Your task to perform on an android device: Open the phone app and click the voicemail tab. Image 0: 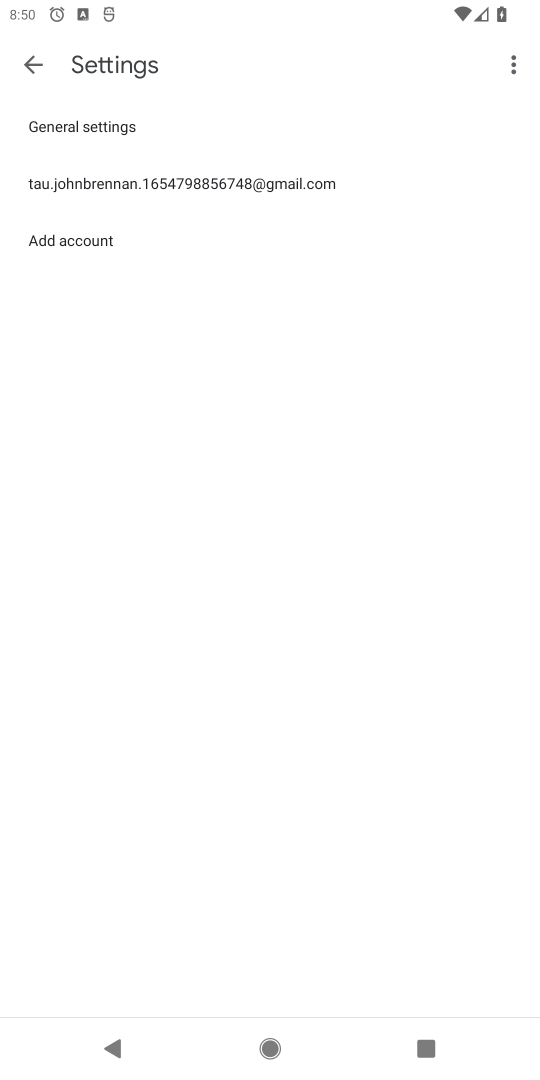
Step 0: press home button
Your task to perform on an android device: Open the phone app and click the voicemail tab. Image 1: 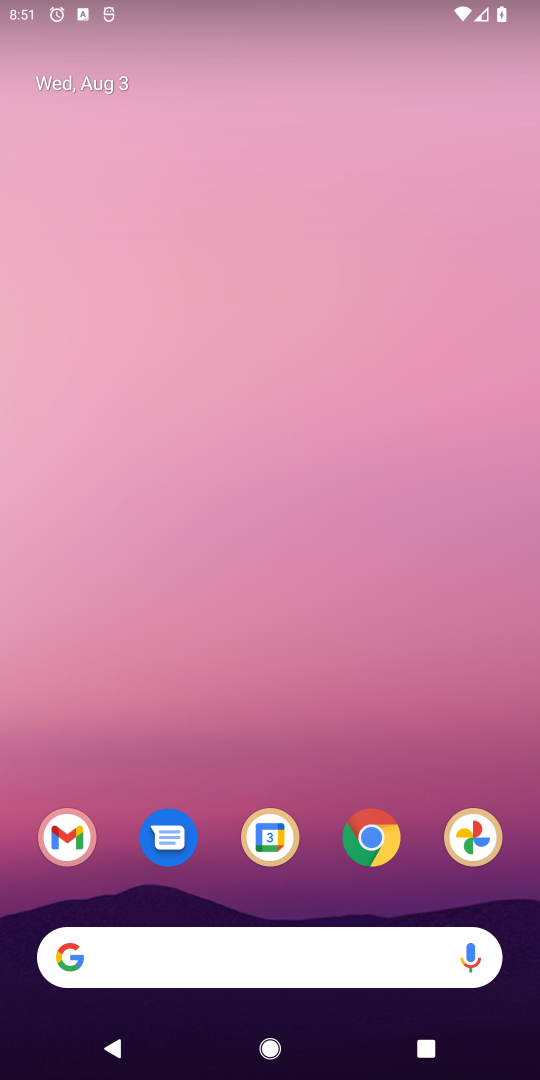
Step 1: drag from (321, 925) to (359, 393)
Your task to perform on an android device: Open the phone app and click the voicemail tab. Image 2: 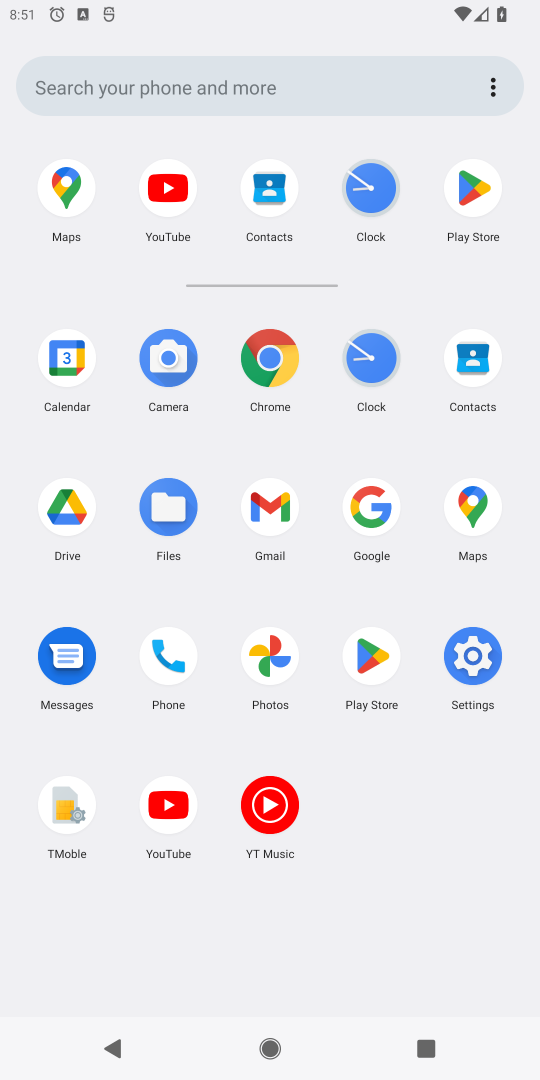
Step 2: click (154, 668)
Your task to perform on an android device: Open the phone app and click the voicemail tab. Image 3: 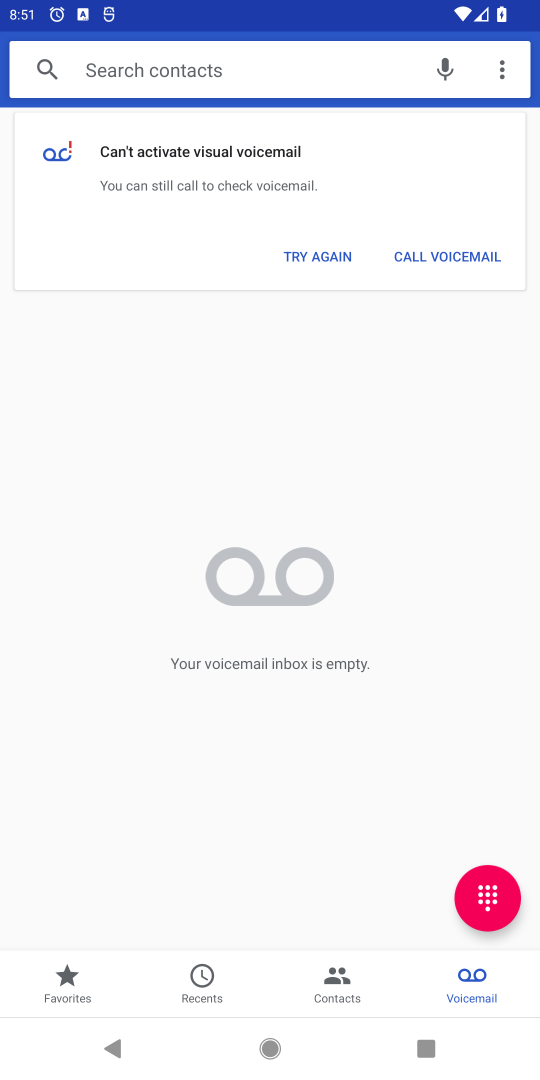
Step 3: click (481, 976)
Your task to perform on an android device: Open the phone app and click the voicemail tab. Image 4: 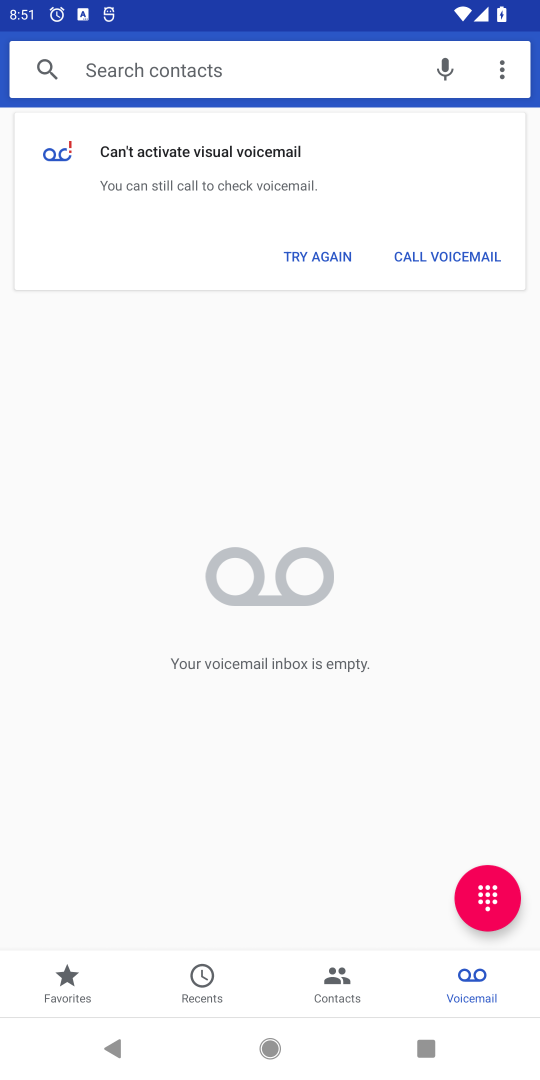
Step 4: task complete